Your task to perform on an android device: toggle javascript in the chrome app Image 0: 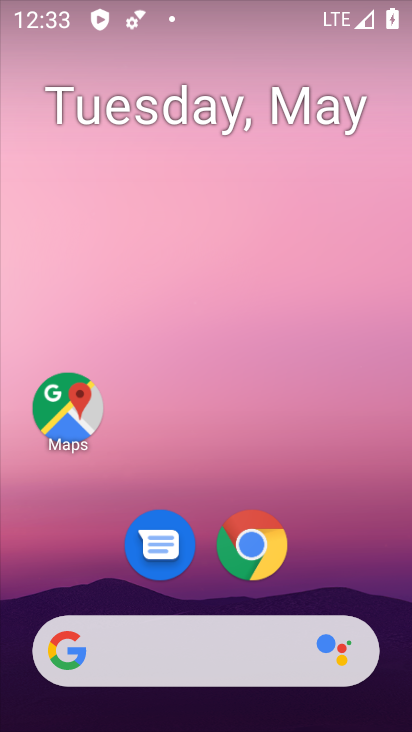
Step 0: drag from (343, 534) to (359, 200)
Your task to perform on an android device: toggle javascript in the chrome app Image 1: 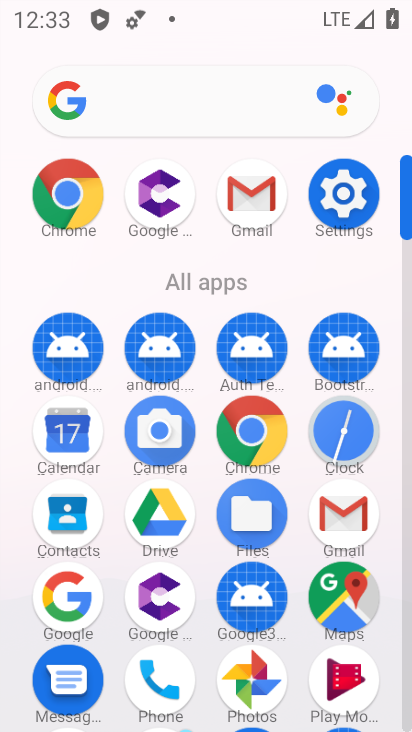
Step 1: click (270, 432)
Your task to perform on an android device: toggle javascript in the chrome app Image 2: 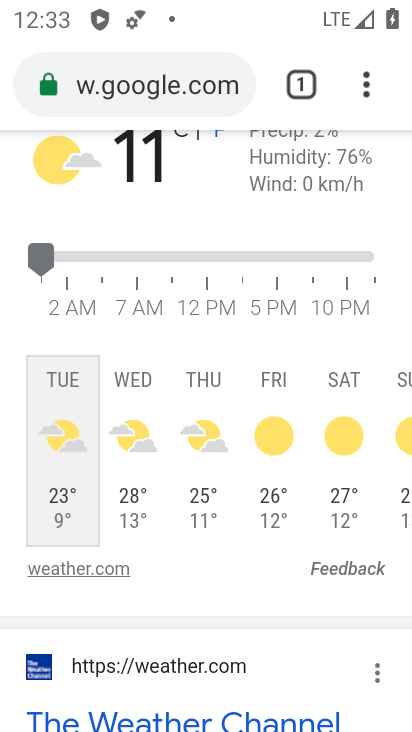
Step 2: drag from (375, 85) to (165, 588)
Your task to perform on an android device: toggle javascript in the chrome app Image 3: 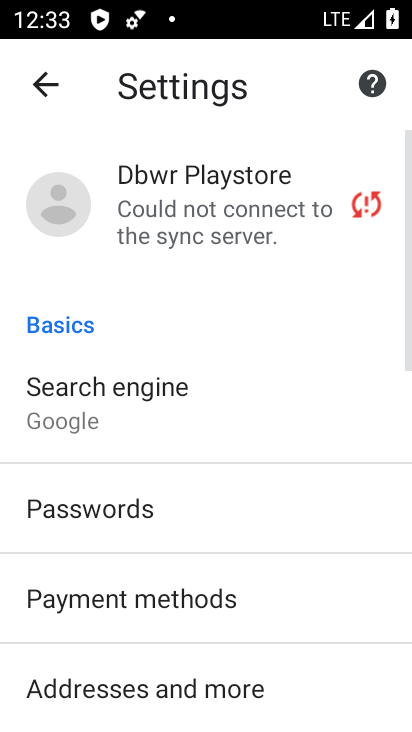
Step 3: drag from (333, 677) to (382, 347)
Your task to perform on an android device: toggle javascript in the chrome app Image 4: 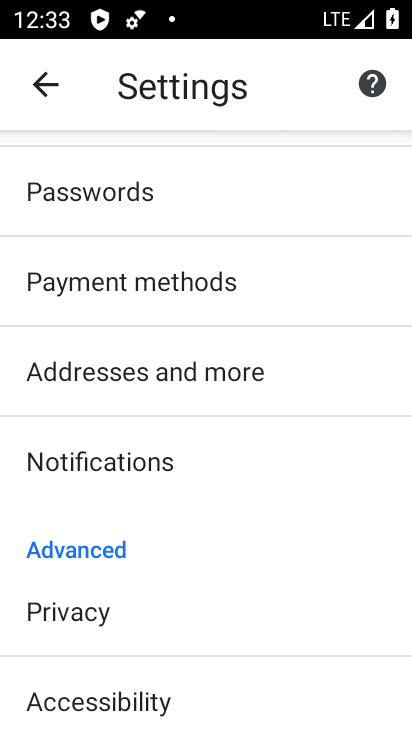
Step 4: drag from (272, 643) to (310, 305)
Your task to perform on an android device: toggle javascript in the chrome app Image 5: 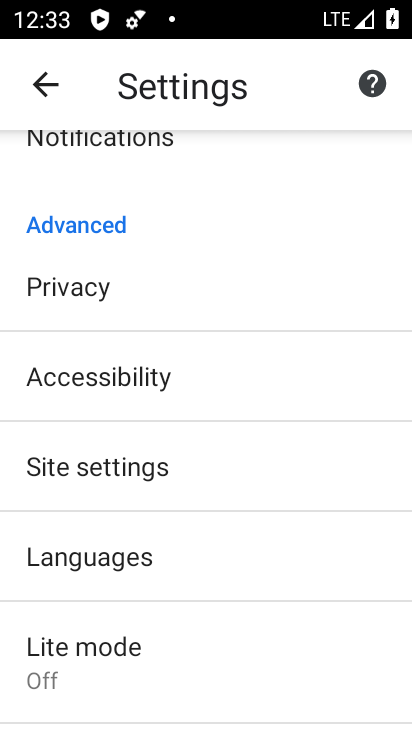
Step 5: drag from (145, 627) to (192, 374)
Your task to perform on an android device: toggle javascript in the chrome app Image 6: 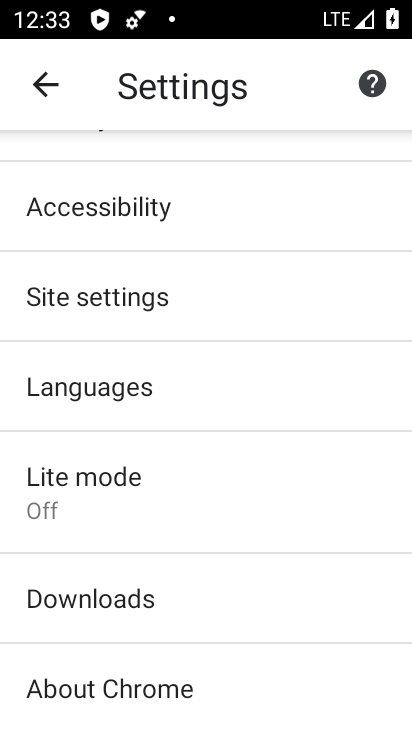
Step 6: click (136, 295)
Your task to perform on an android device: toggle javascript in the chrome app Image 7: 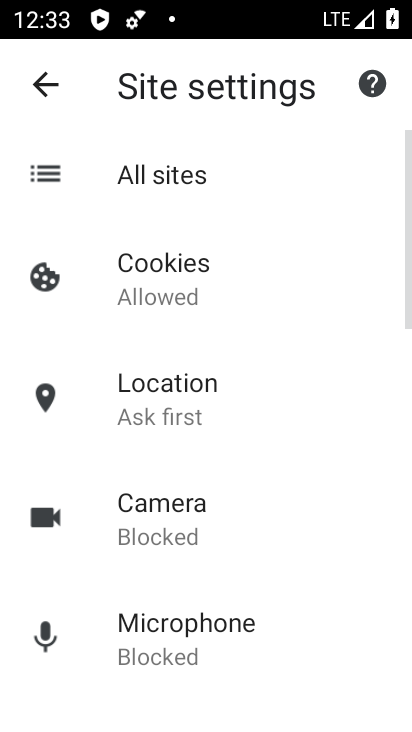
Step 7: drag from (243, 696) to (290, 309)
Your task to perform on an android device: toggle javascript in the chrome app Image 8: 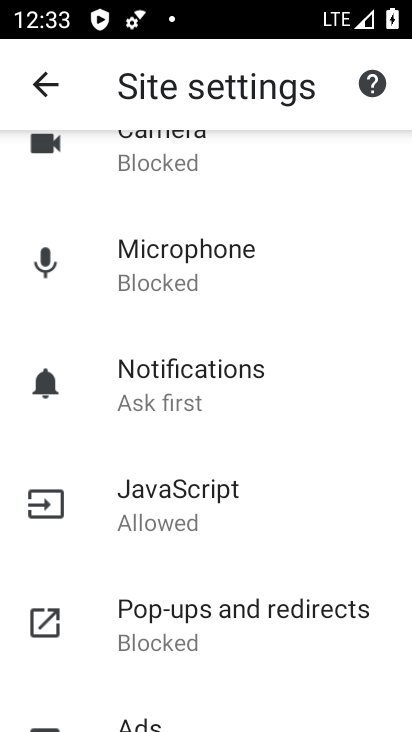
Step 8: click (201, 484)
Your task to perform on an android device: toggle javascript in the chrome app Image 9: 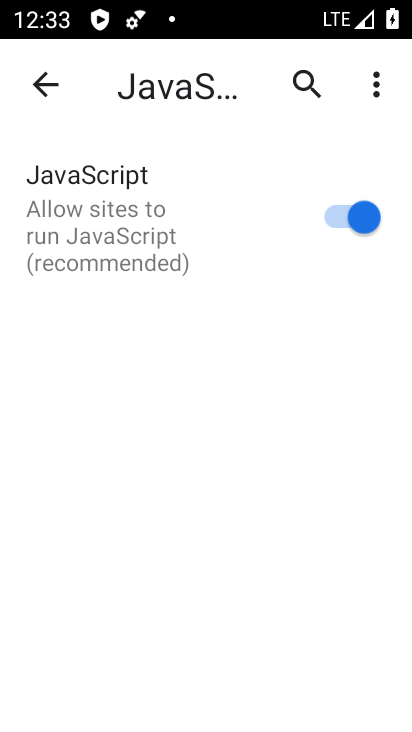
Step 9: click (342, 212)
Your task to perform on an android device: toggle javascript in the chrome app Image 10: 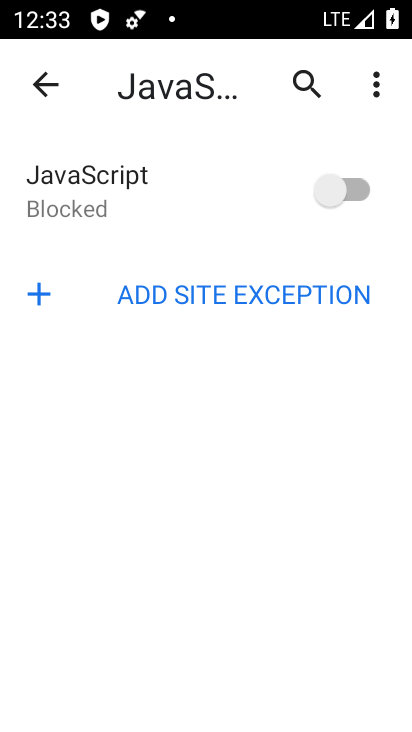
Step 10: task complete